Your task to perform on an android device: turn on priority inbox in the gmail app Image 0: 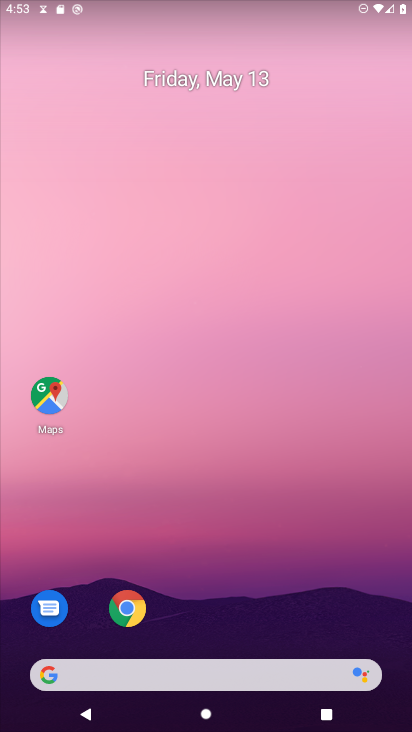
Step 0: drag from (282, 656) to (256, 0)
Your task to perform on an android device: turn on priority inbox in the gmail app Image 1: 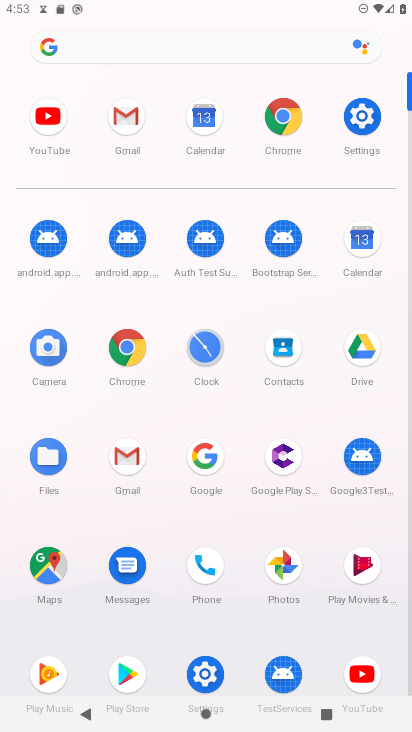
Step 1: click (113, 455)
Your task to perform on an android device: turn on priority inbox in the gmail app Image 2: 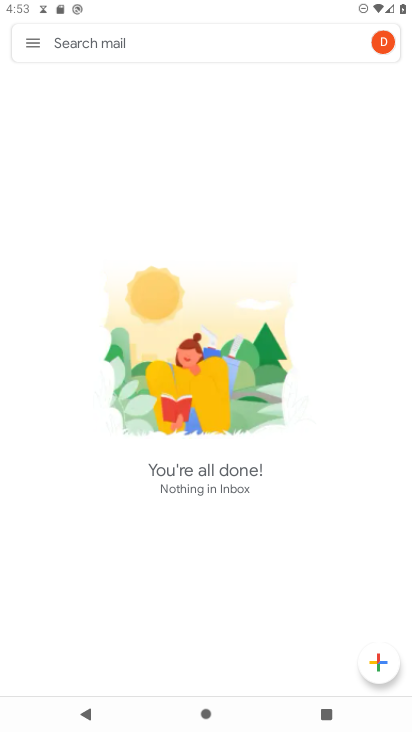
Step 2: click (33, 42)
Your task to perform on an android device: turn on priority inbox in the gmail app Image 3: 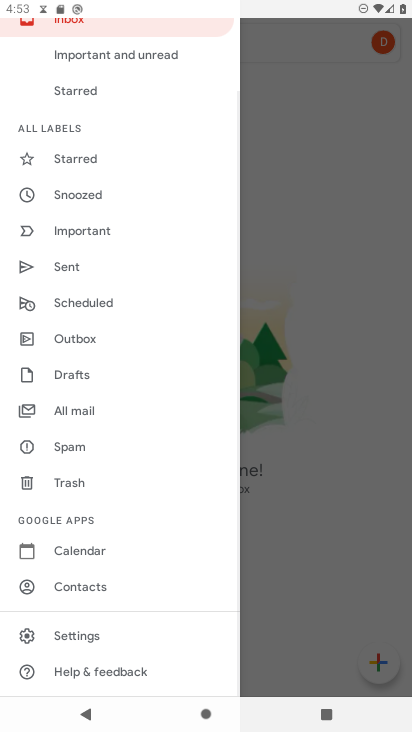
Step 3: click (105, 629)
Your task to perform on an android device: turn on priority inbox in the gmail app Image 4: 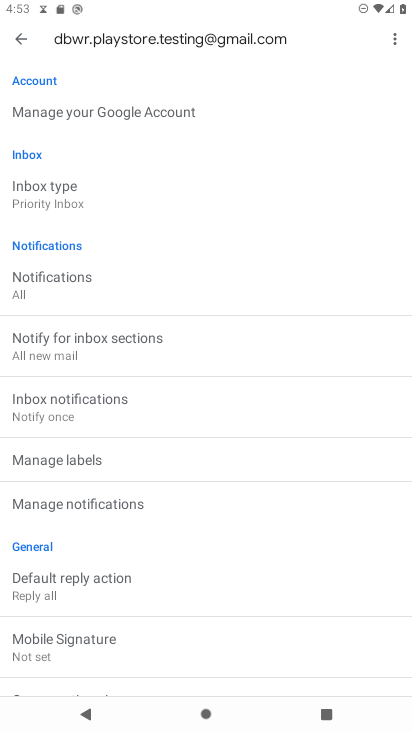
Step 4: task complete